Your task to perform on an android device: change the clock style Image 0: 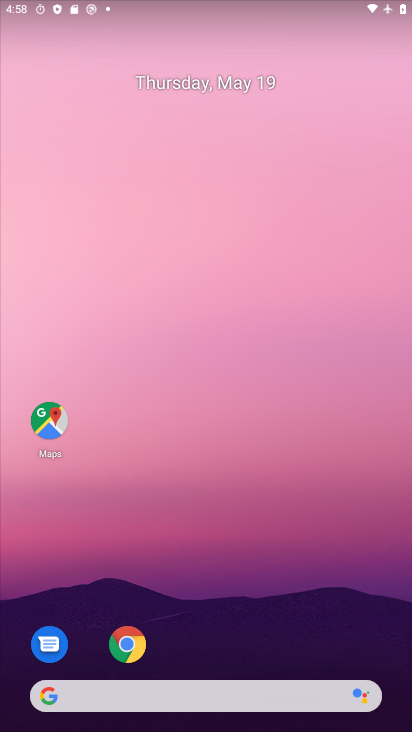
Step 0: drag from (218, 678) to (243, 261)
Your task to perform on an android device: change the clock style Image 1: 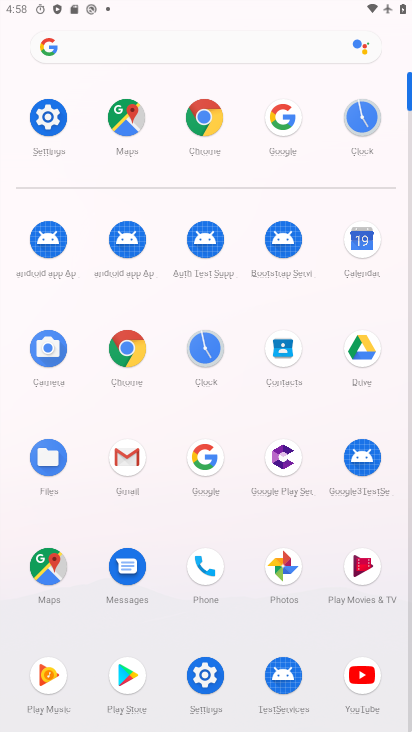
Step 1: click (365, 123)
Your task to perform on an android device: change the clock style Image 2: 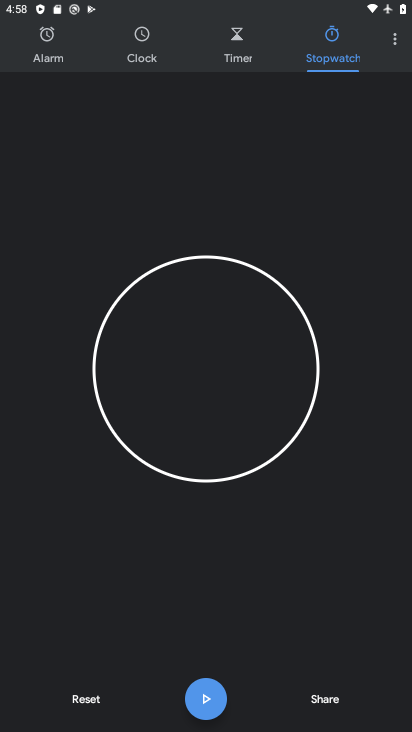
Step 2: click (394, 36)
Your task to perform on an android device: change the clock style Image 3: 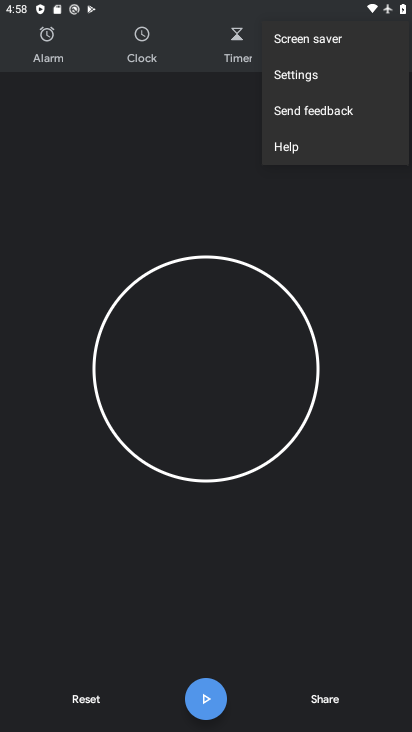
Step 3: click (304, 79)
Your task to perform on an android device: change the clock style Image 4: 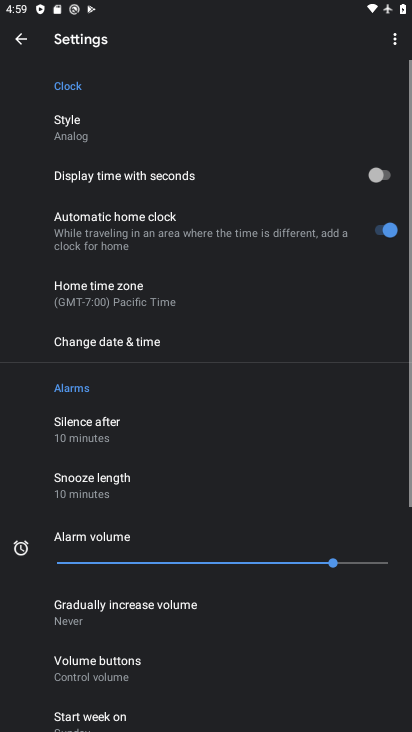
Step 4: click (84, 124)
Your task to perform on an android device: change the clock style Image 5: 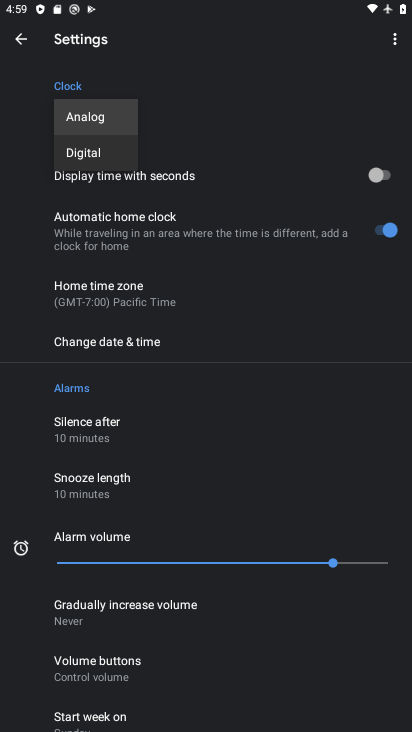
Step 5: click (67, 160)
Your task to perform on an android device: change the clock style Image 6: 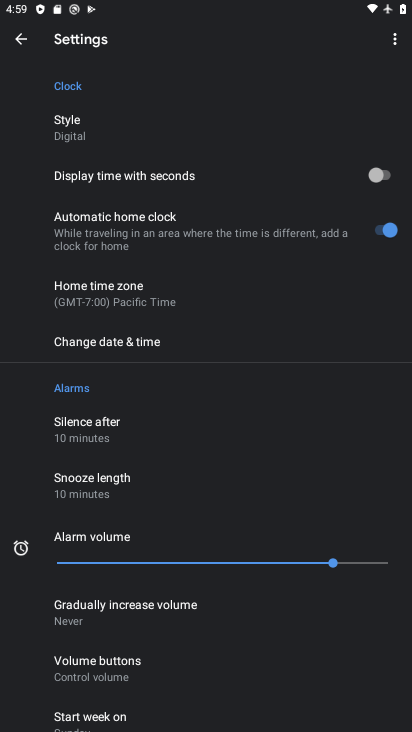
Step 6: task complete